Your task to perform on an android device: Search for sony triple a on ebay.com, select the first entry, add it to the cart, then select checkout. Image 0: 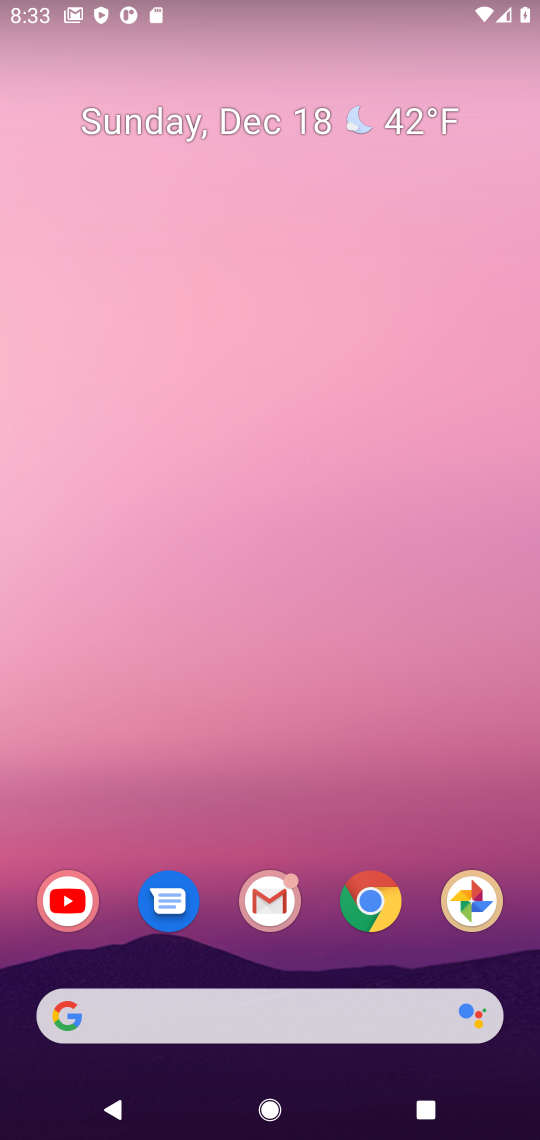
Step 0: click (359, 899)
Your task to perform on an android device: Search for sony triple a on ebay.com, select the first entry, add it to the cart, then select checkout. Image 1: 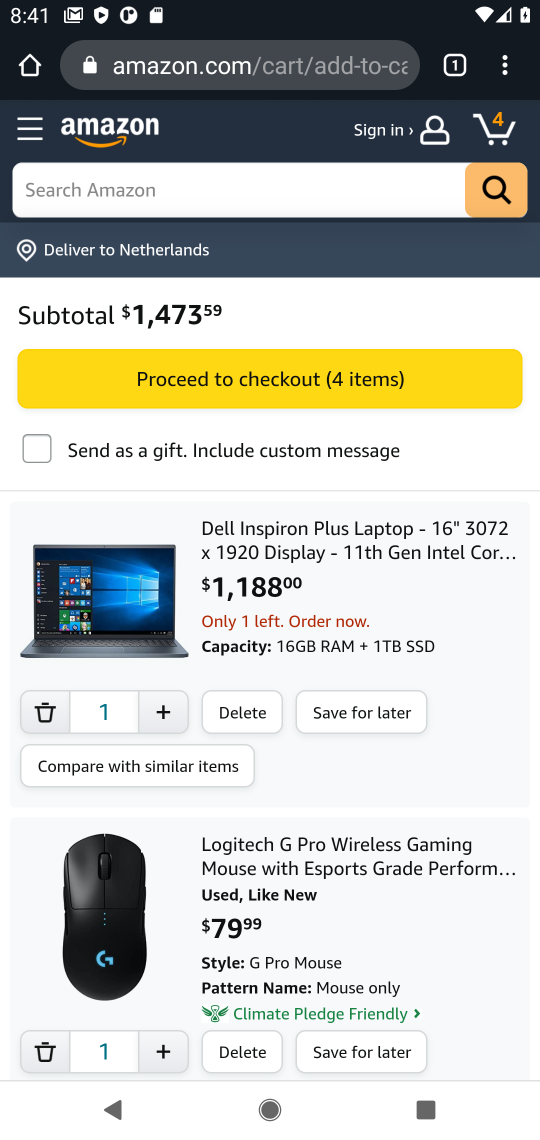
Step 1: click (269, 71)
Your task to perform on an android device: Search for sony triple a on ebay.com, select the first entry, add it to the cart, then select checkout. Image 2: 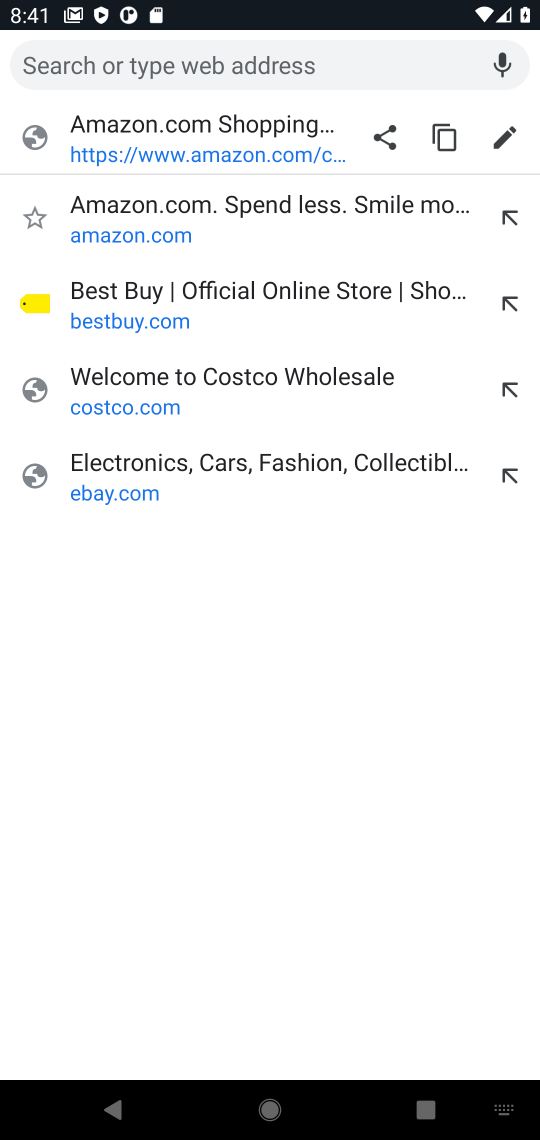
Step 2: type "ebay.com"
Your task to perform on an android device: Search for sony triple a on ebay.com, select the first entry, add it to the cart, then select checkout. Image 3: 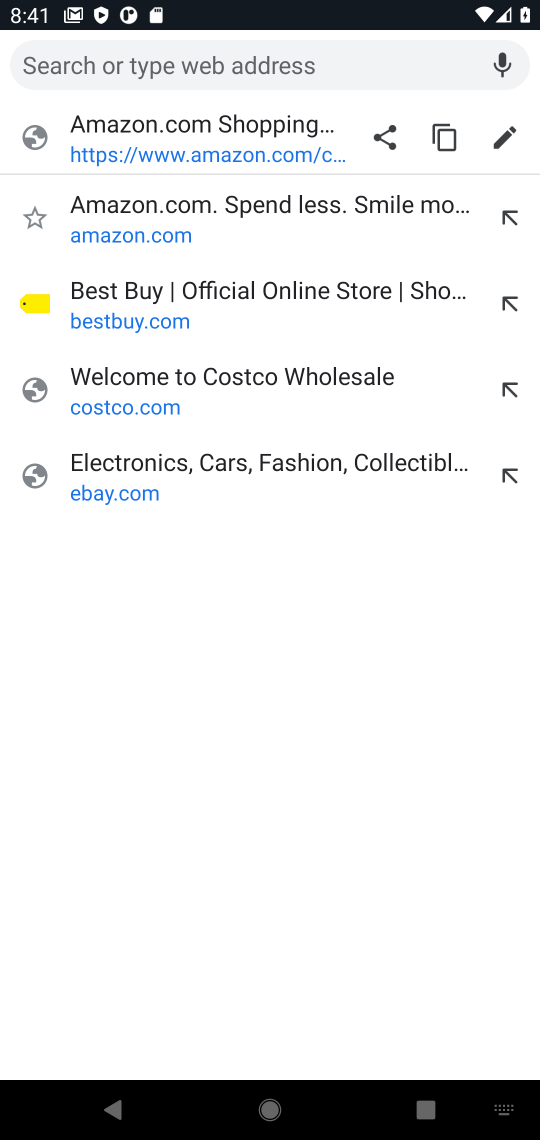
Step 3: click (116, 124)
Your task to perform on an android device: Search for sony triple a on ebay.com, select the first entry, add it to the cart, then select checkout. Image 4: 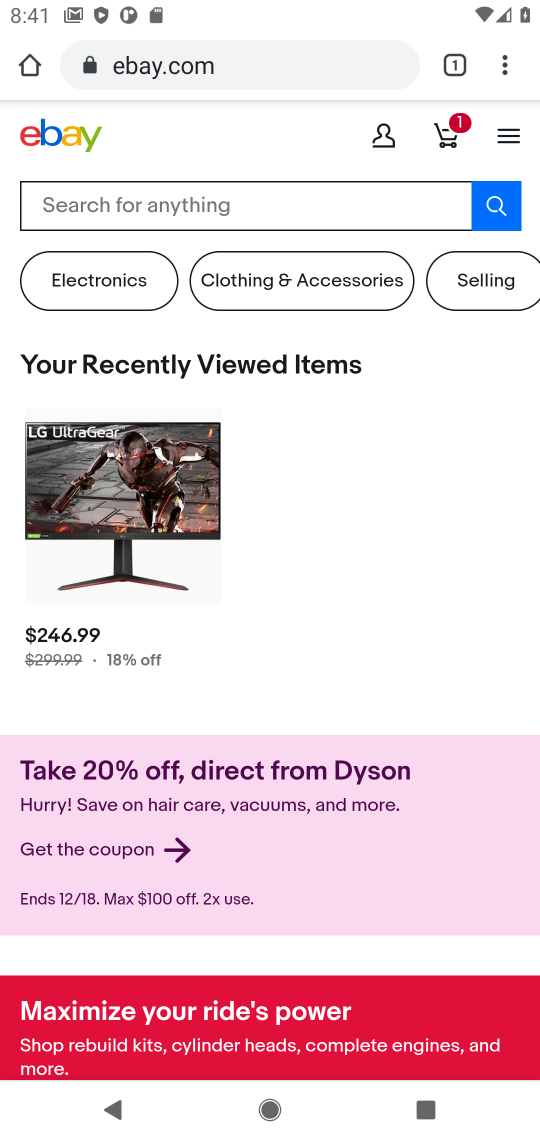
Step 4: click (84, 202)
Your task to perform on an android device: Search for sony triple a on ebay.com, select the first entry, add it to the cart, then select checkout. Image 5: 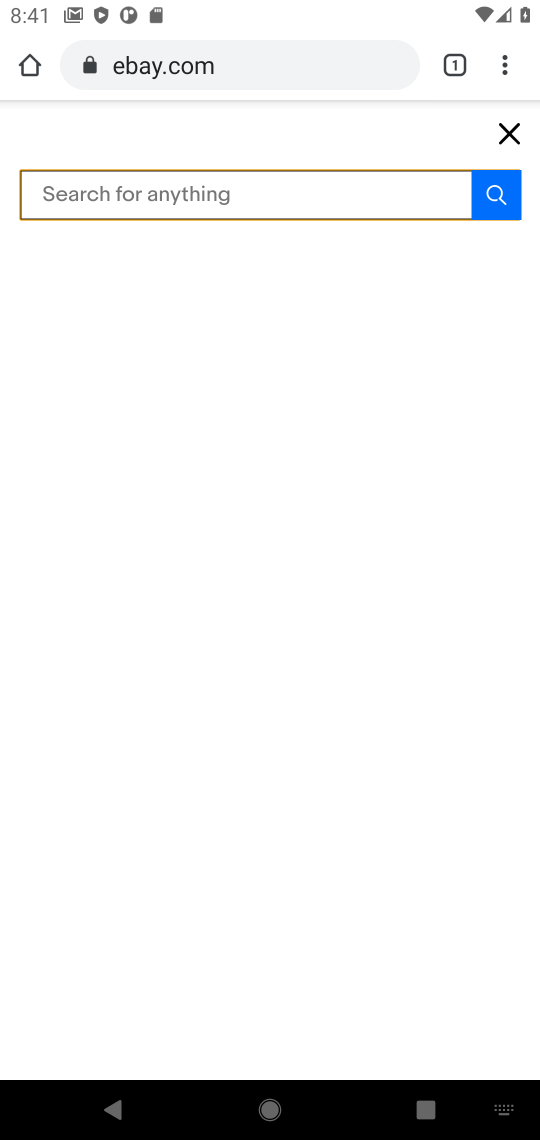
Step 5: type "sony triple a"
Your task to perform on an android device: Search for sony triple a on ebay.com, select the first entry, add it to the cart, then select checkout. Image 6: 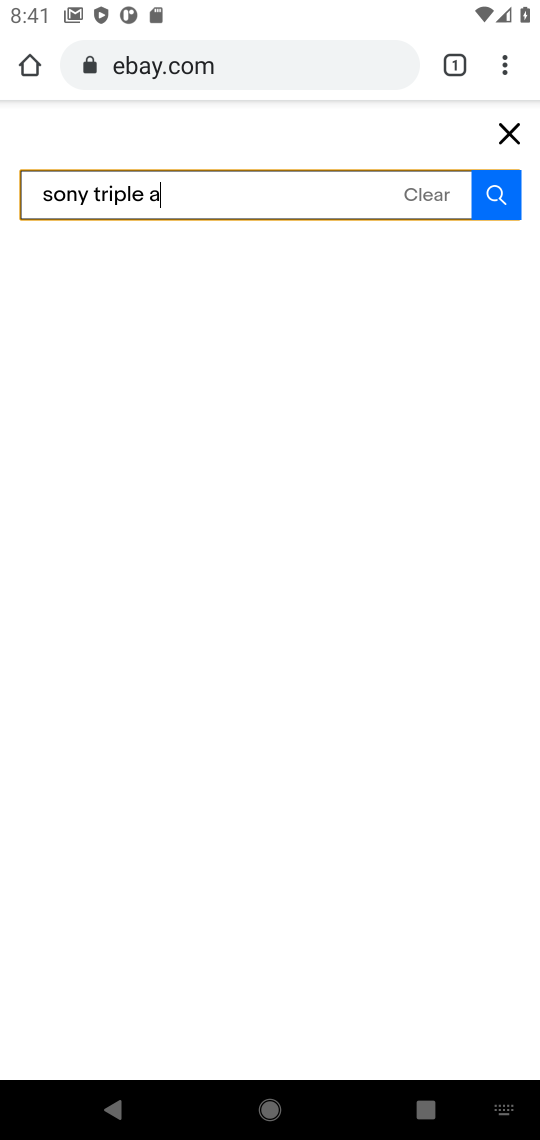
Step 6: click (489, 186)
Your task to perform on an android device: Search for sony triple a on ebay.com, select the first entry, add it to the cart, then select checkout. Image 7: 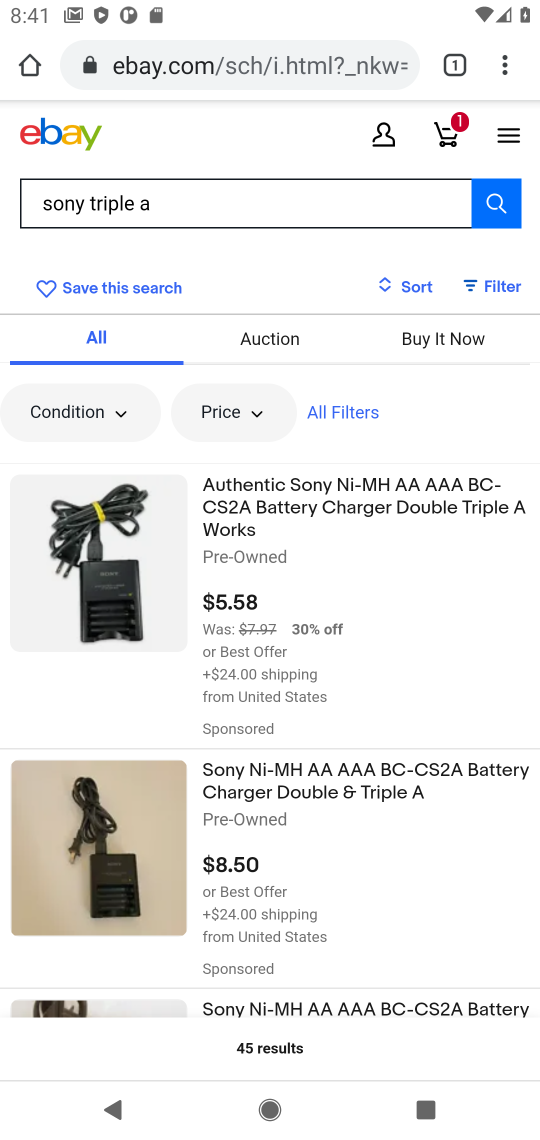
Step 7: click (320, 528)
Your task to perform on an android device: Search for sony triple a on ebay.com, select the first entry, add it to the cart, then select checkout. Image 8: 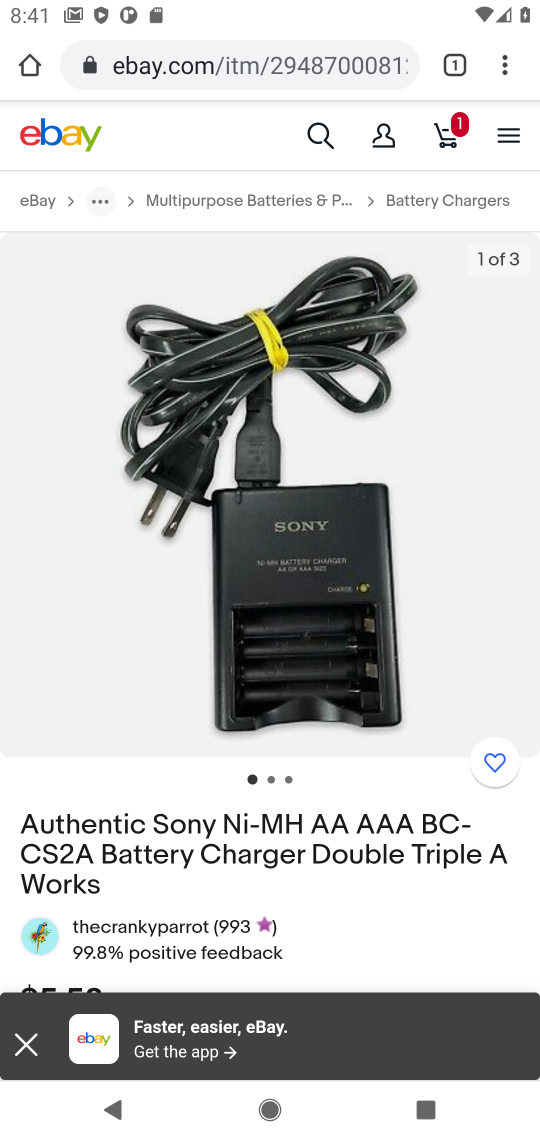
Step 8: task complete